Your task to perform on an android device: turn off picture-in-picture Image 0: 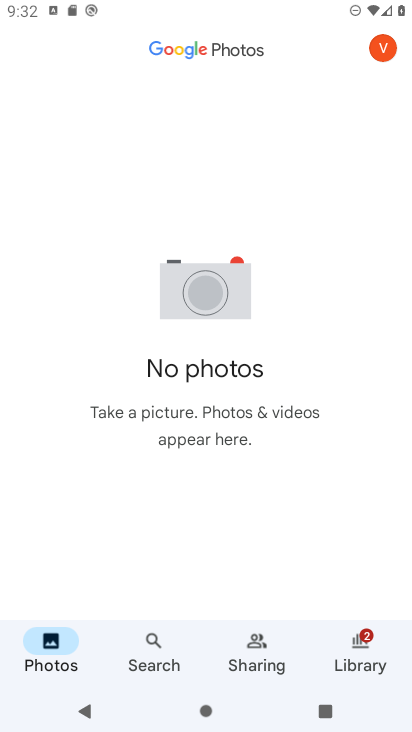
Step 0: press home button
Your task to perform on an android device: turn off picture-in-picture Image 1: 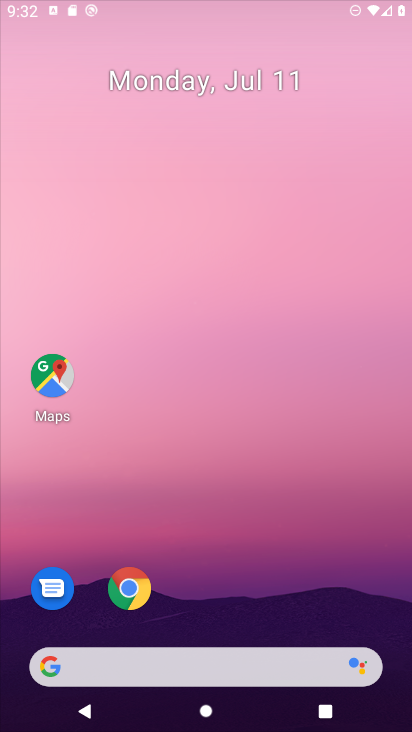
Step 1: drag from (399, 679) to (12, 0)
Your task to perform on an android device: turn off picture-in-picture Image 2: 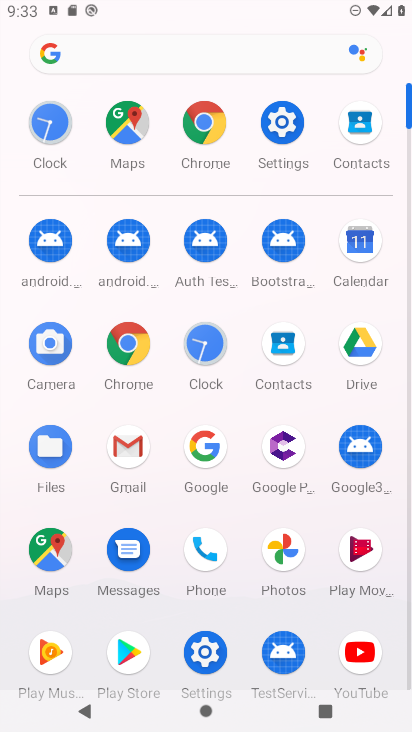
Step 2: click (188, 127)
Your task to perform on an android device: turn off picture-in-picture Image 3: 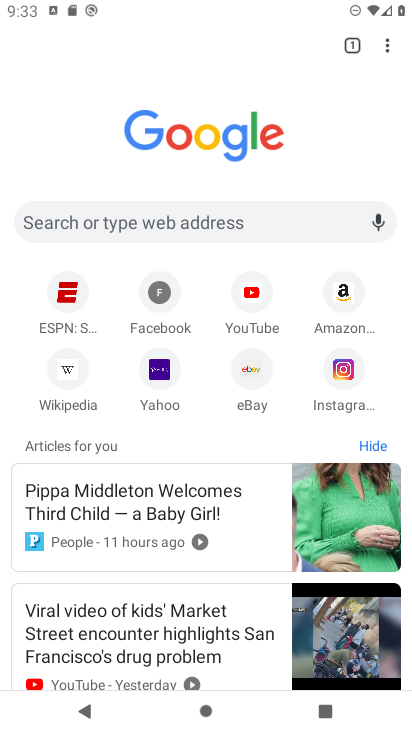
Step 3: task complete